Your task to perform on an android device: change notifications settings Image 0: 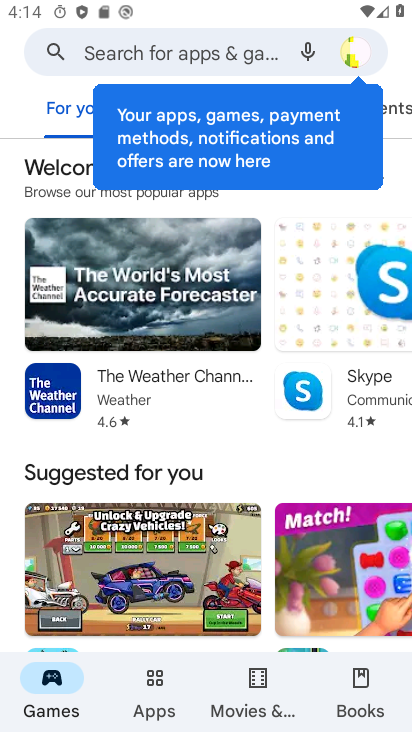
Step 0: press home button
Your task to perform on an android device: change notifications settings Image 1: 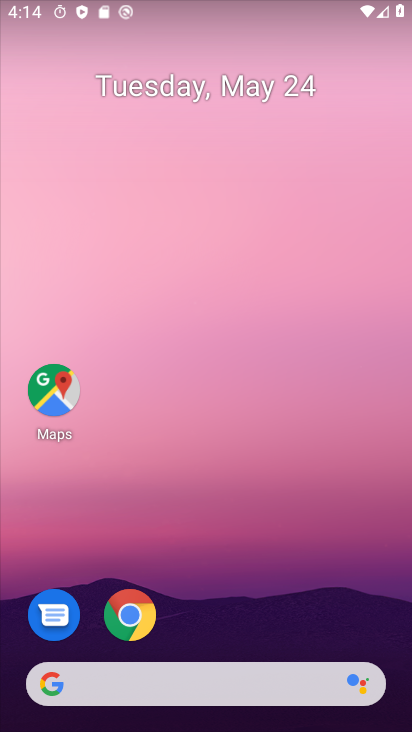
Step 1: drag from (227, 588) to (287, 38)
Your task to perform on an android device: change notifications settings Image 2: 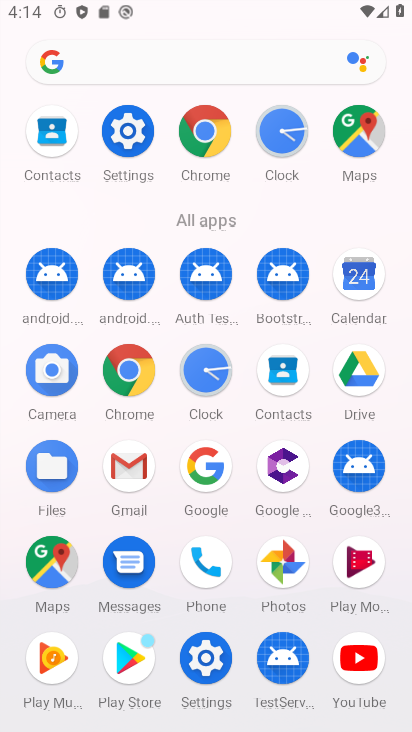
Step 2: click (128, 130)
Your task to perform on an android device: change notifications settings Image 3: 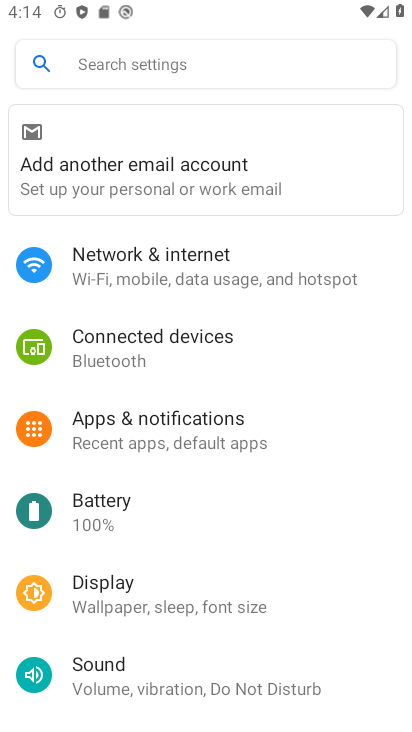
Step 3: click (141, 421)
Your task to perform on an android device: change notifications settings Image 4: 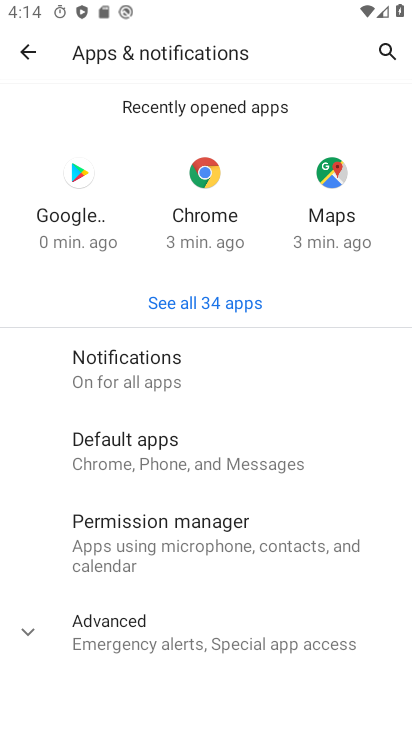
Step 4: click (172, 362)
Your task to perform on an android device: change notifications settings Image 5: 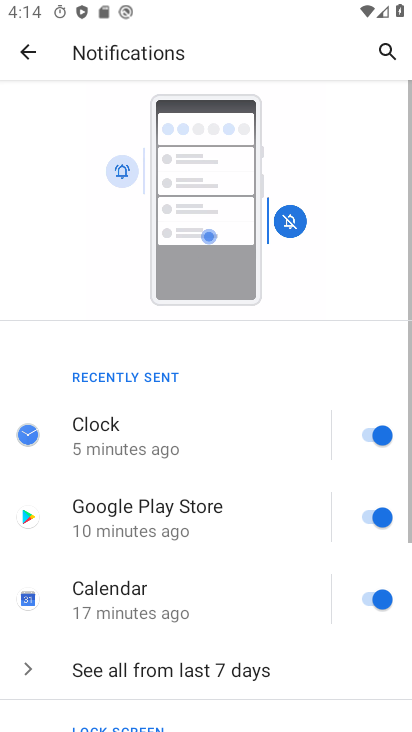
Step 5: drag from (205, 673) to (248, 115)
Your task to perform on an android device: change notifications settings Image 6: 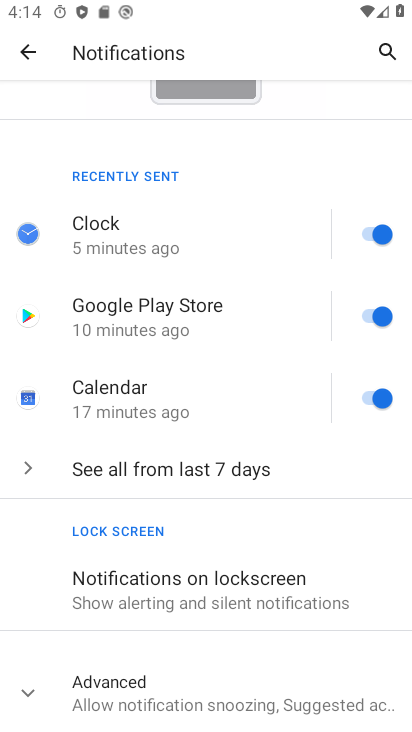
Step 6: click (140, 689)
Your task to perform on an android device: change notifications settings Image 7: 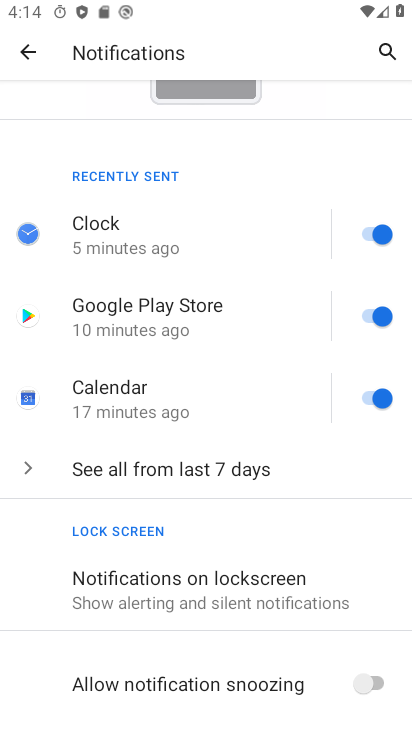
Step 7: drag from (199, 643) to (261, 175)
Your task to perform on an android device: change notifications settings Image 8: 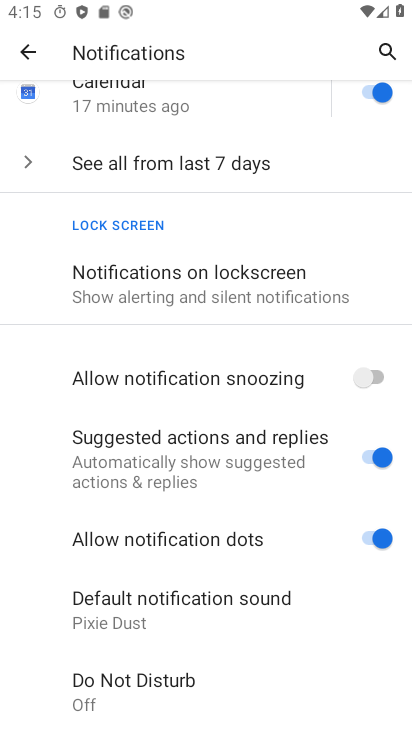
Step 8: click (358, 373)
Your task to perform on an android device: change notifications settings Image 9: 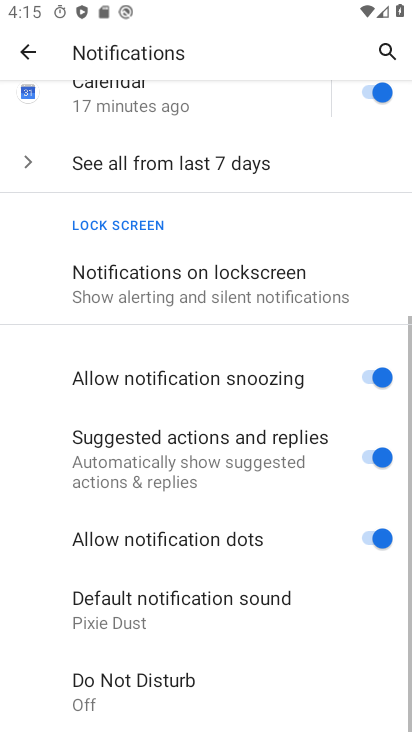
Step 9: task complete